Your task to perform on an android device: When is my next meeting? Image 0: 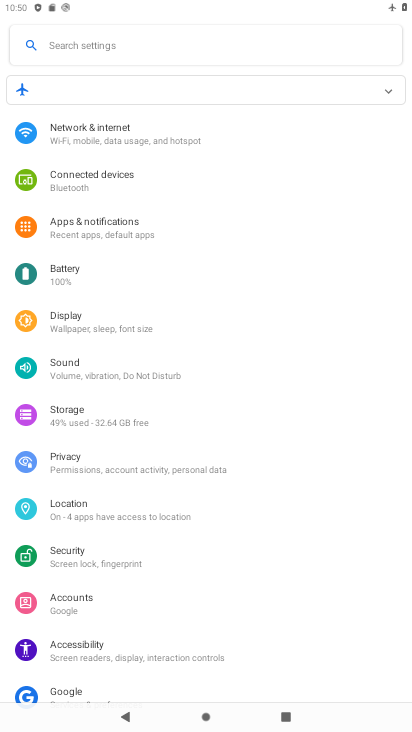
Step 0: press home button
Your task to perform on an android device: When is my next meeting? Image 1: 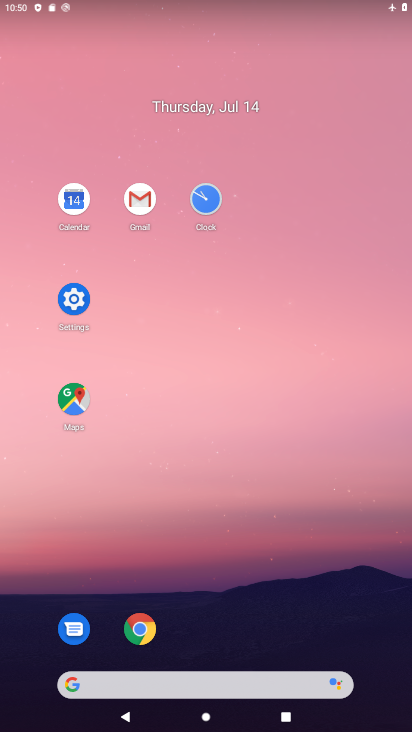
Step 1: click (71, 208)
Your task to perform on an android device: When is my next meeting? Image 2: 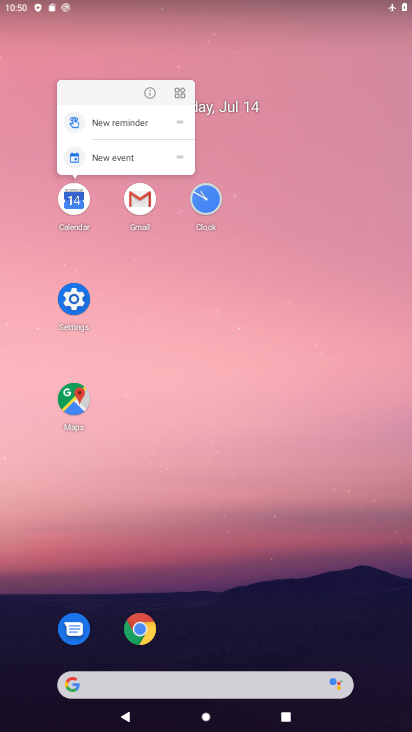
Step 2: click (71, 208)
Your task to perform on an android device: When is my next meeting? Image 3: 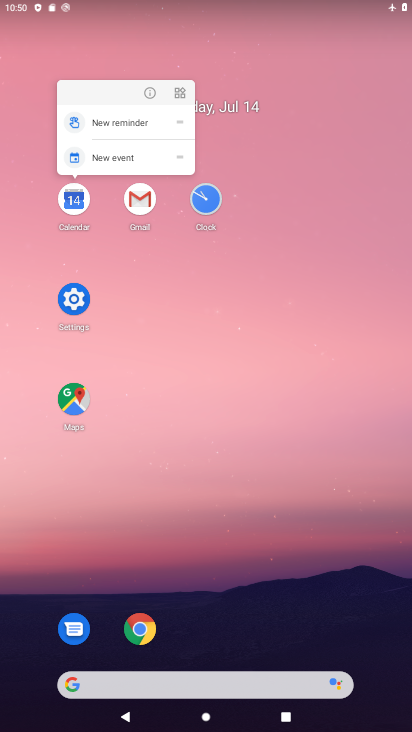
Step 3: click (71, 208)
Your task to perform on an android device: When is my next meeting? Image 4: 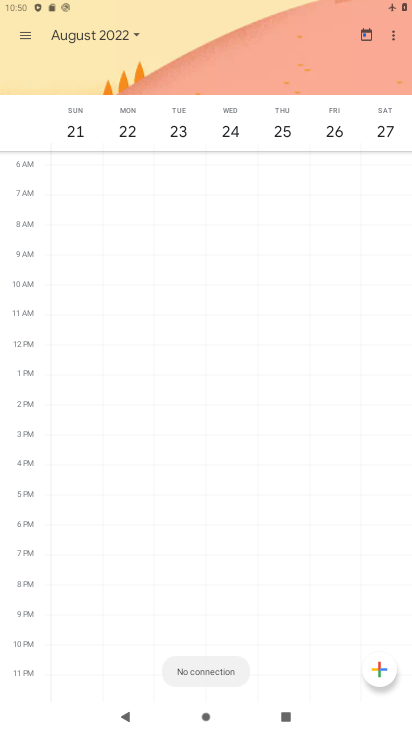
Step 4: click (114, 34)
Your task to perform on an android device: When is my next meeting? Image 5: 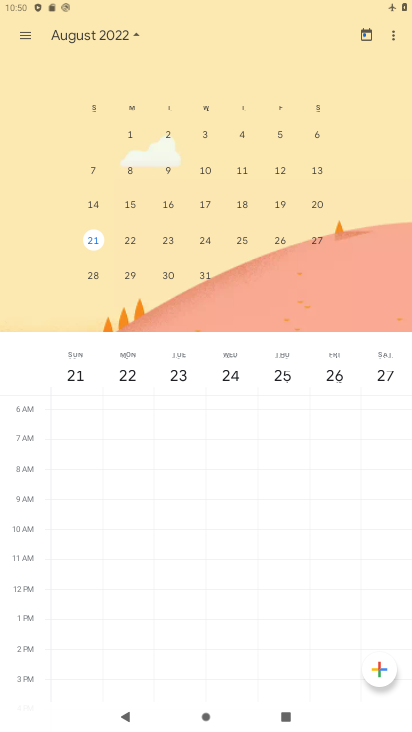
Step 5: drag from (86, 189) to (392, 207)
Your task to perform on an android device: When is my next meeting? Image 6: 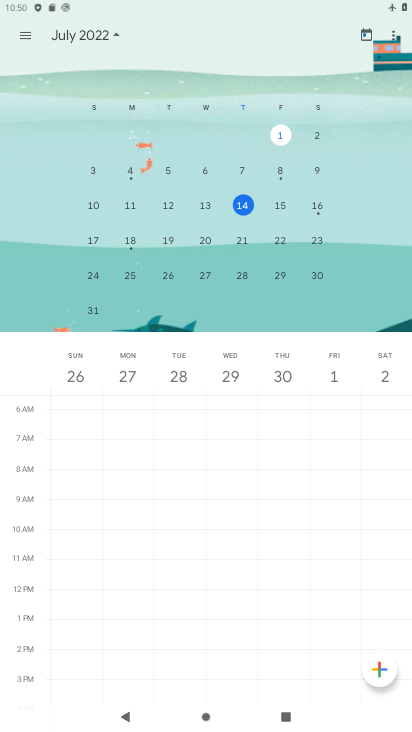
Step 6: click (284, 204)
Your task to perform on an android device: When is my next meeting? Image 7: 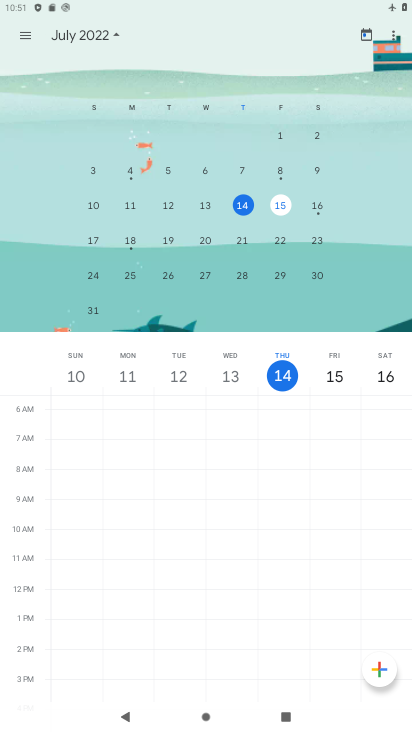
Step 7: task complete